Your task to perform on an android device: Open network settings Image 0: 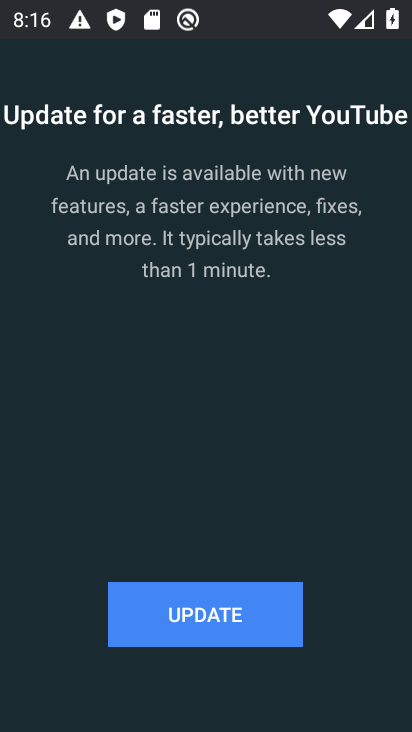
Step 0: press home button
Your task to perform on an android device: Open network settings Image 1: 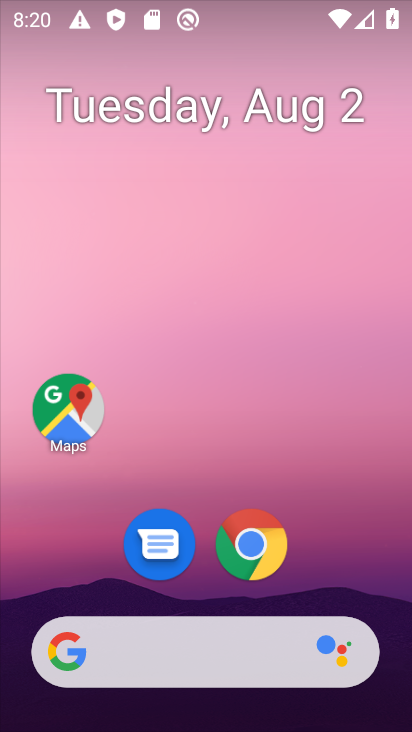
Step 1: drag from (172, 627) to (94, 224)
Your task to perform on an android device: Open network settings Image 2: 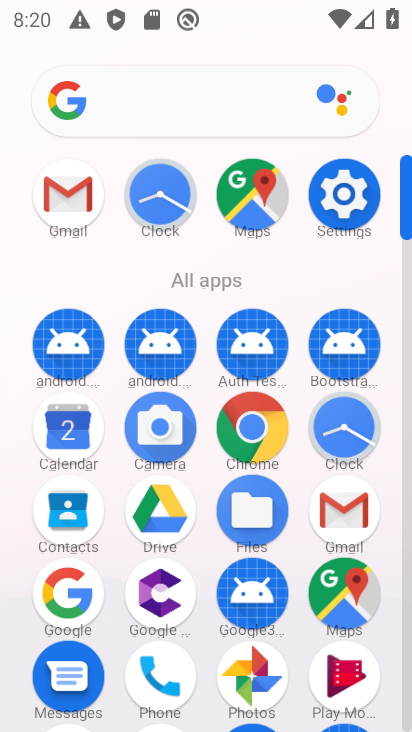
Step 2: click (339, 209)
Your task to perform on an android device: Open network settings Image 3: 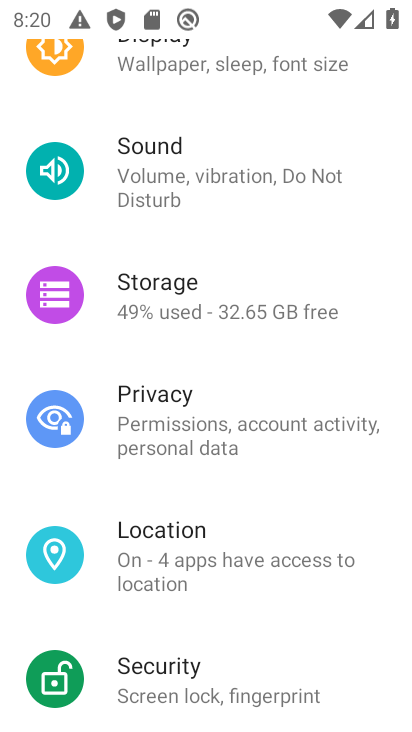
Step 3: drag from (226, 134) to (300, 448)
Your task to perform on an android device: Open network settings Image 4: 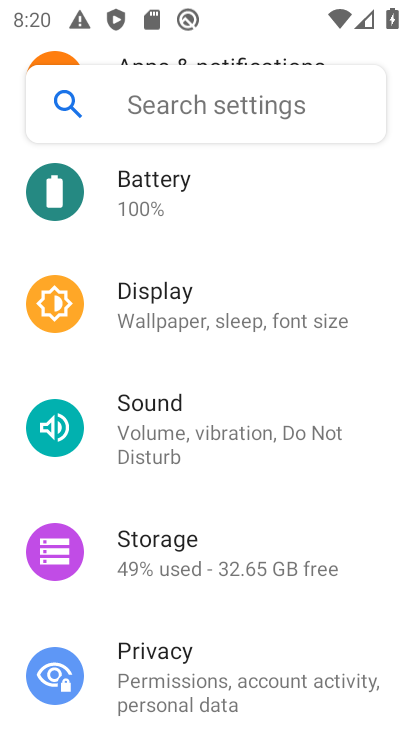
Step 4: drag from (195, 220) to (229, 565)
Your task to perform on an android device: Open network settings Image 5: 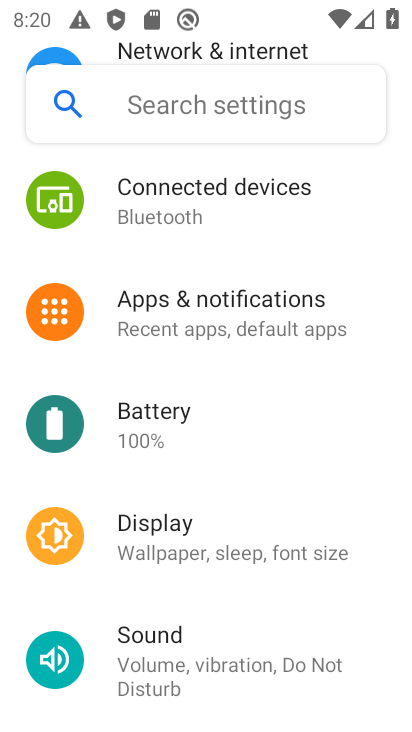
Step 5: drag from (168, 212) to (312, 488)
Your task to perform on an android device: Open network settings Image 6: 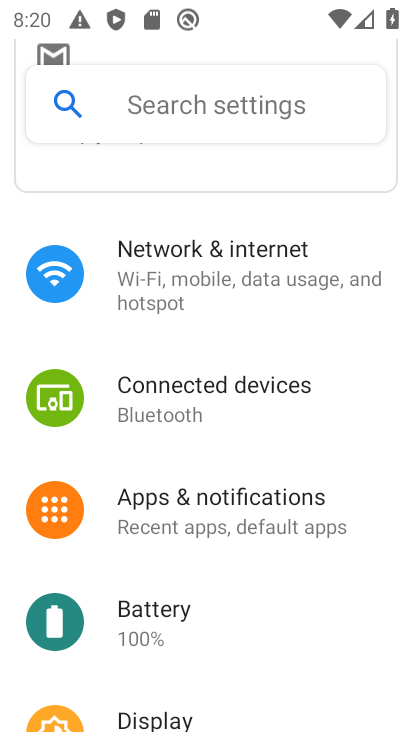
Step 6: click (159, 280)
Your task to perform on an android device: Open network settings Image 7: 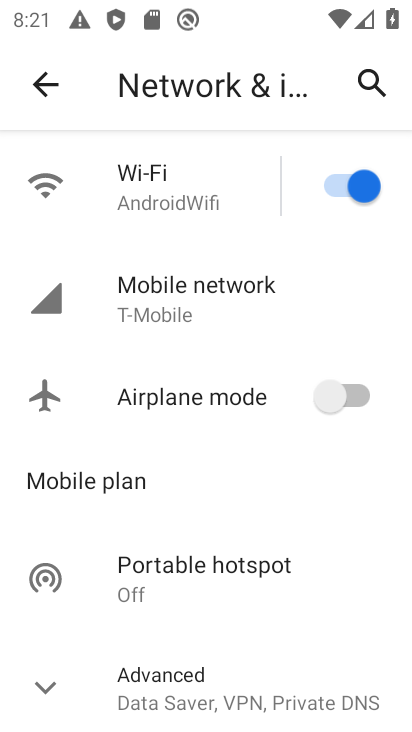
Step 7: drag from (299, 539) to (144, 245)
Your task to perform on an android device: Open network settings Image 8: 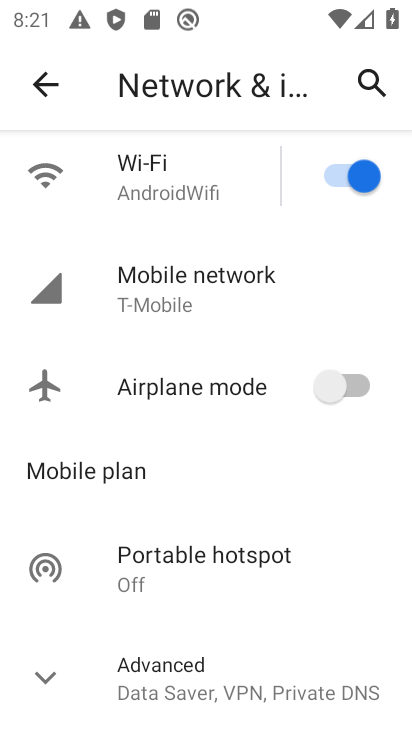
Step 8: click (210, 658)
Your task to perform on an android device: Open network settings Image 9: 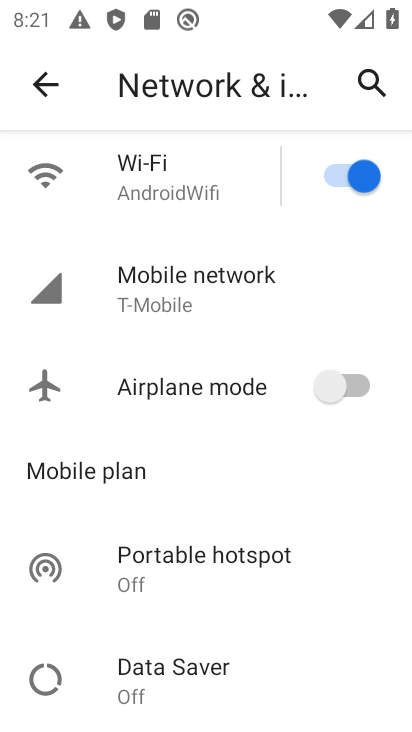
Step 9: task complete